Your task to perform on an android device: Open calendar and show me the third week of next month Image 0: 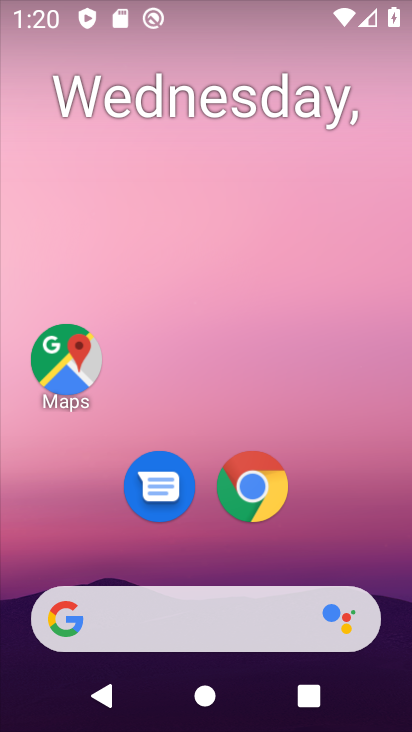
Step 0: drag from (256, 655) to (164, 8)
Your task to perform on an android device: Open calendar and show me the third week of next month Image 1: 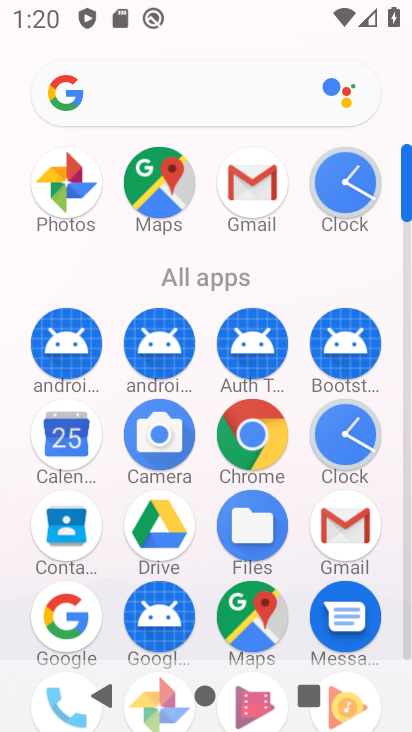
Step 1: click (81, 439)
Your task to perform on an android device: Open calendar and show me the third week of next month Image 2: 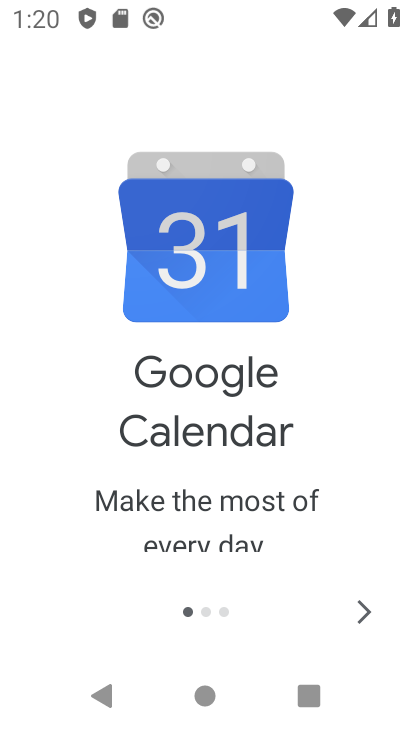
Step 2: click (358, 617)
Your task to perform on an android device: Open calendar and show me the third week of next month Image 3: 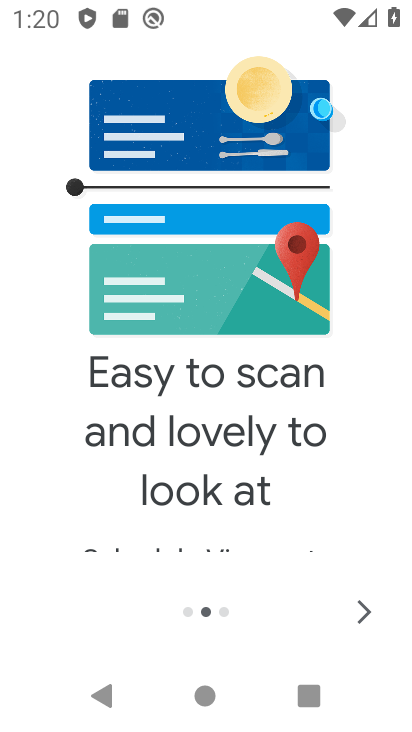
Step 3: click (358, 612)
Your task to perform on an android device: Open calendar and show me the third week of next month Image 4: 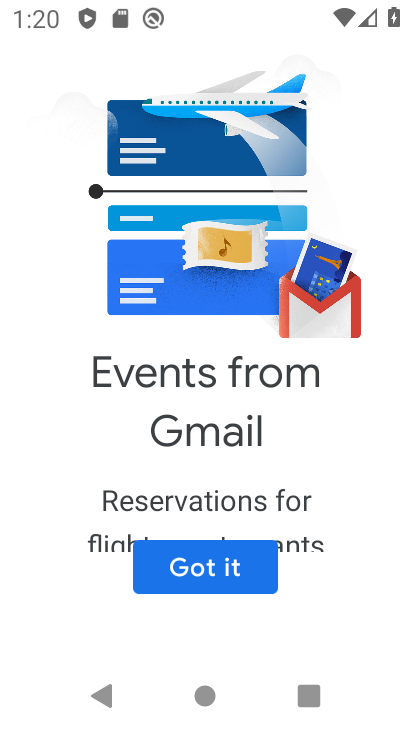
Step 4: click (220, 565)
Your task to perform on an android device: Open calendar and show me the third week of next month Image 5: 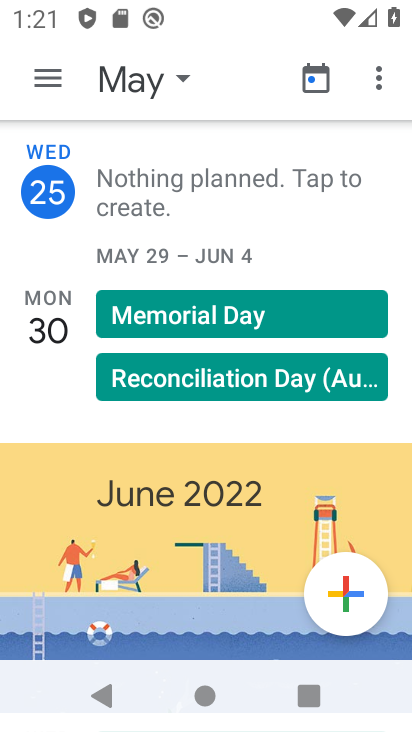
Step 5: click (135, 74)
Your task to perform on an android device: Open calendar and show me the third week of next month Image 6: 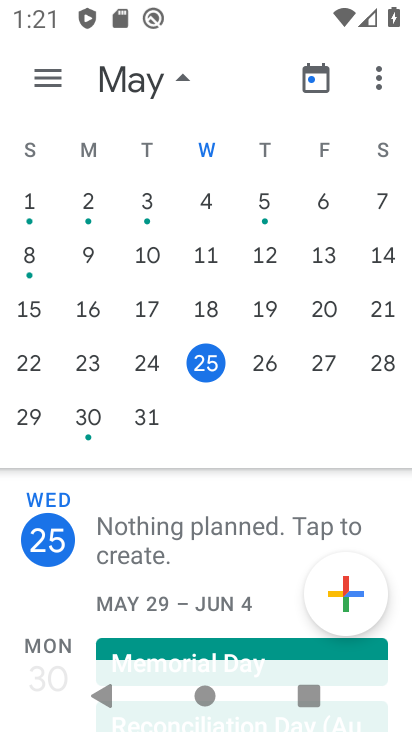
Step 6: drag from (347, 350) to (109, 447)
Your task to perform on an android device: Open calendar and show me the third week of next month Image 7: 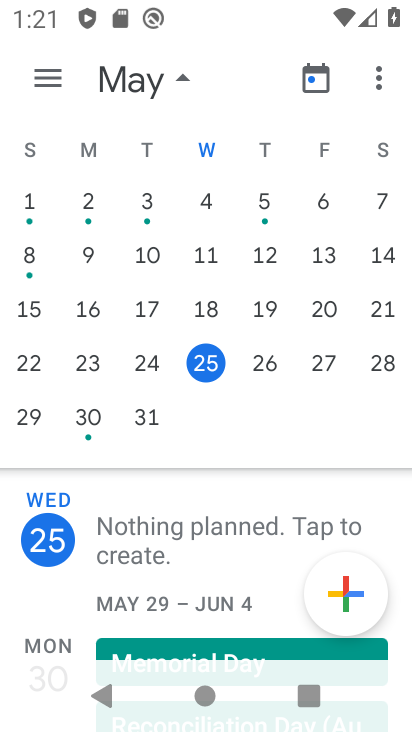
Step 7: drag from (309, 233) to (14, 304)
Your task to perform on an android device: Open calendar and show me the third week of next month Image 8: 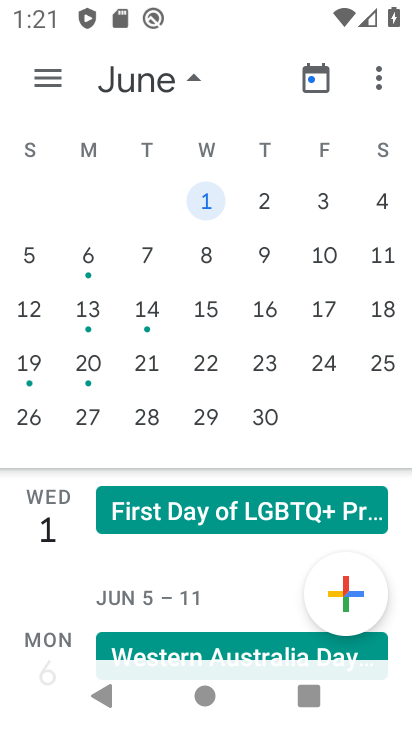
Step 8: click (29, 314)
Your task to perform on an android device: Open calendar and show me the third week of next month Image 9: 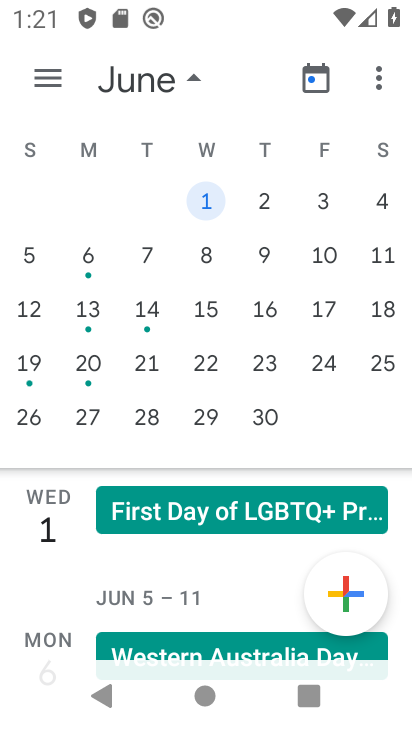
Step 9: click (42, 309)
Your task to perform on an android device: Open calendar and show me the third week of next month Image 10: 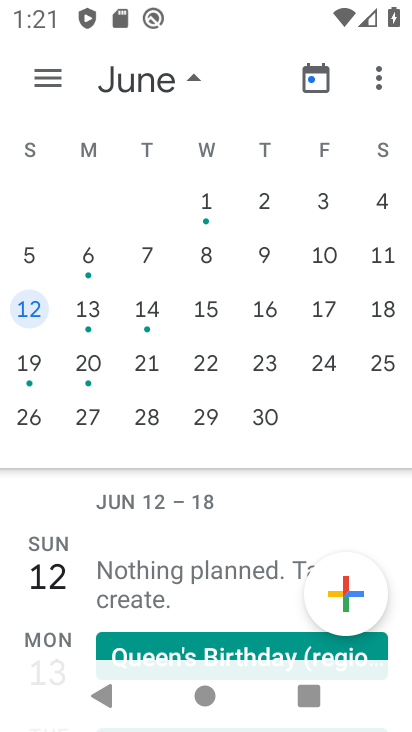
Step 10: task complete